Your task to perform on an android device: change alarm snooze length Image 0: 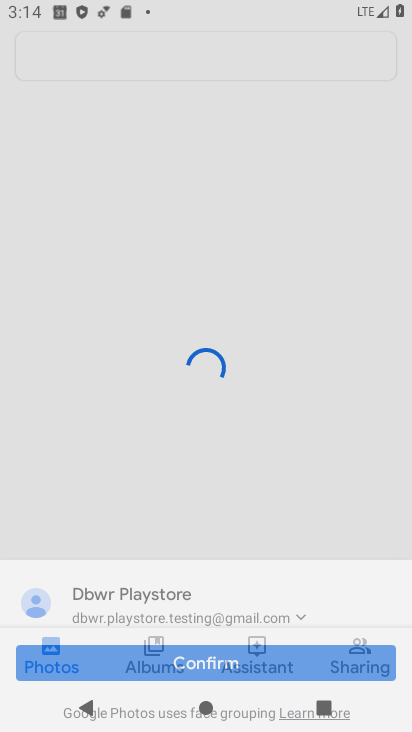
Step 0: press home button
Your task to perform on an android device: change alarm snooze length Image 1: 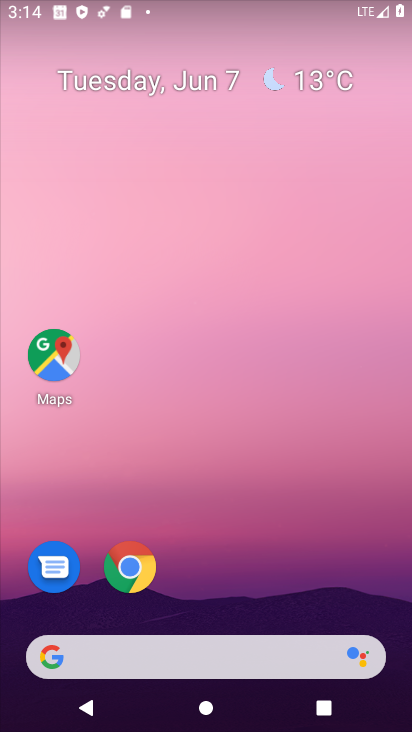
Step 1: drag from (335, 561) to (283, 75)
Your task to perform on an android device: change alarm snooze length Image 2: 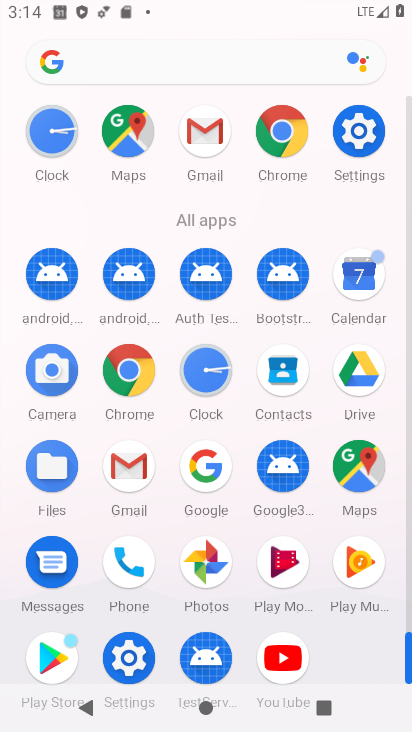
Step 2: click (53, 163)
Your task to perform on an android device: change alarm snooze length Image 3: 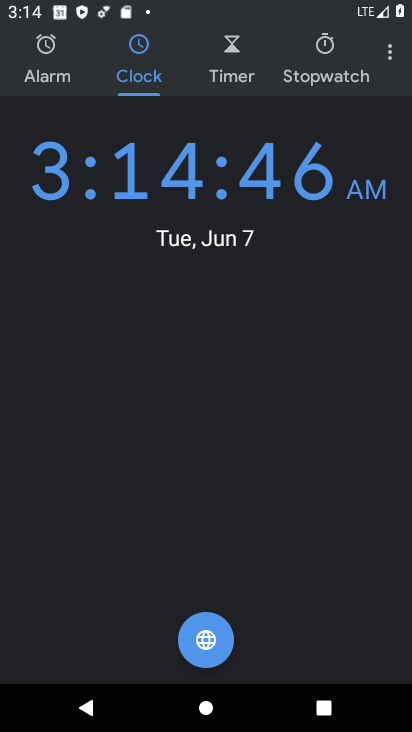
Step 3: click (40, 62)
Your task to perform on an android device: change alarm snooze length Image 4: 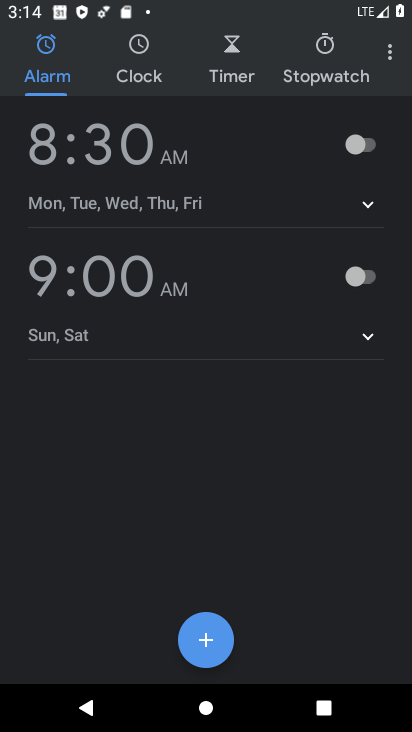
Step 4: click (395, 51)
Your task to perform on an android device: change alarm snooze length Image 5: 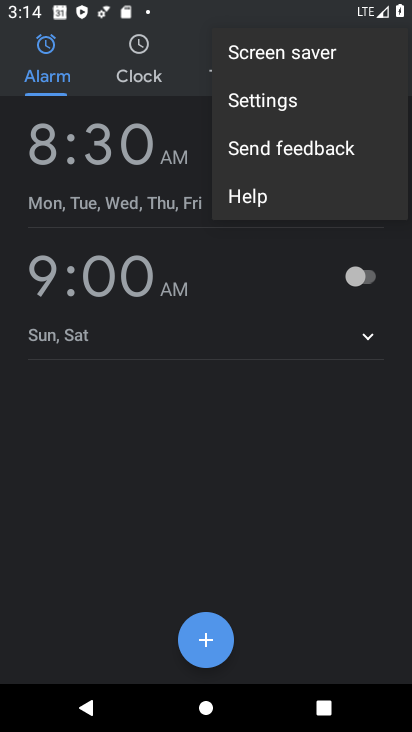
Step 5: click (364, 117)
Your task to perform on an android device: change alarm snooze length Image 6: 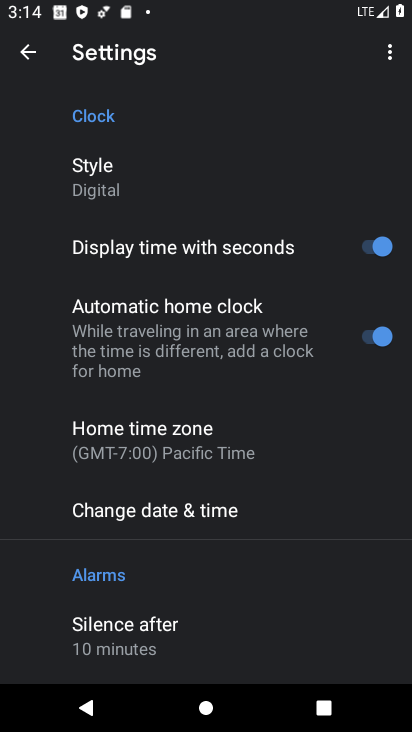
Step 6: drag from (233, 627) to (137, 153)
Your task to perform on an android device: change alarm snooze length Image 7: 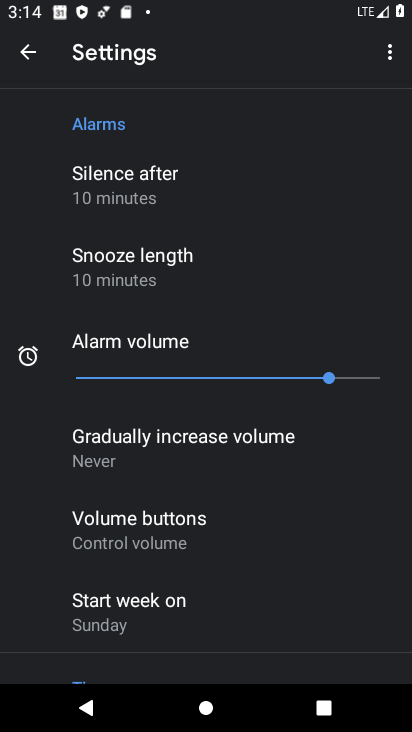
Step 7: click (216, 258)
Your task to perform on an android device: change alarm snooze length Image 8: 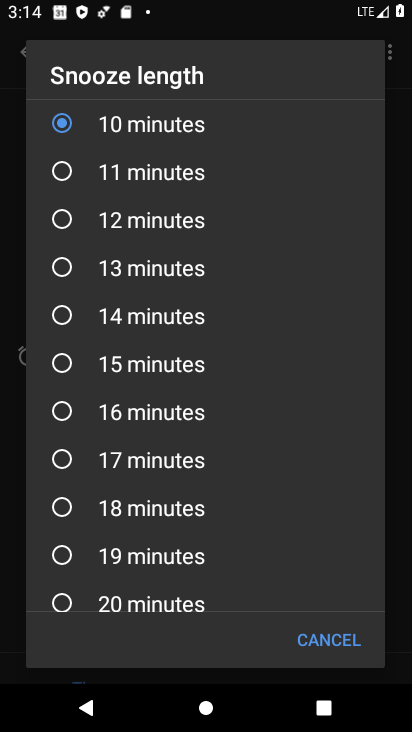
Step 8: click (142, 462)
Your task to perform on an android device: change alarm snooze length Image 9: 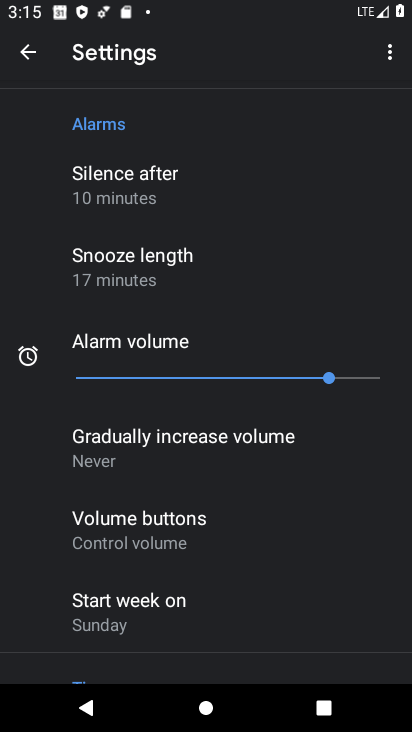
Step 9: task complete